Your task to perform on an android device: Clear the cart on amazon. Add lenovo thinkpad to the cart on amazon, then select checkout. Image 0: 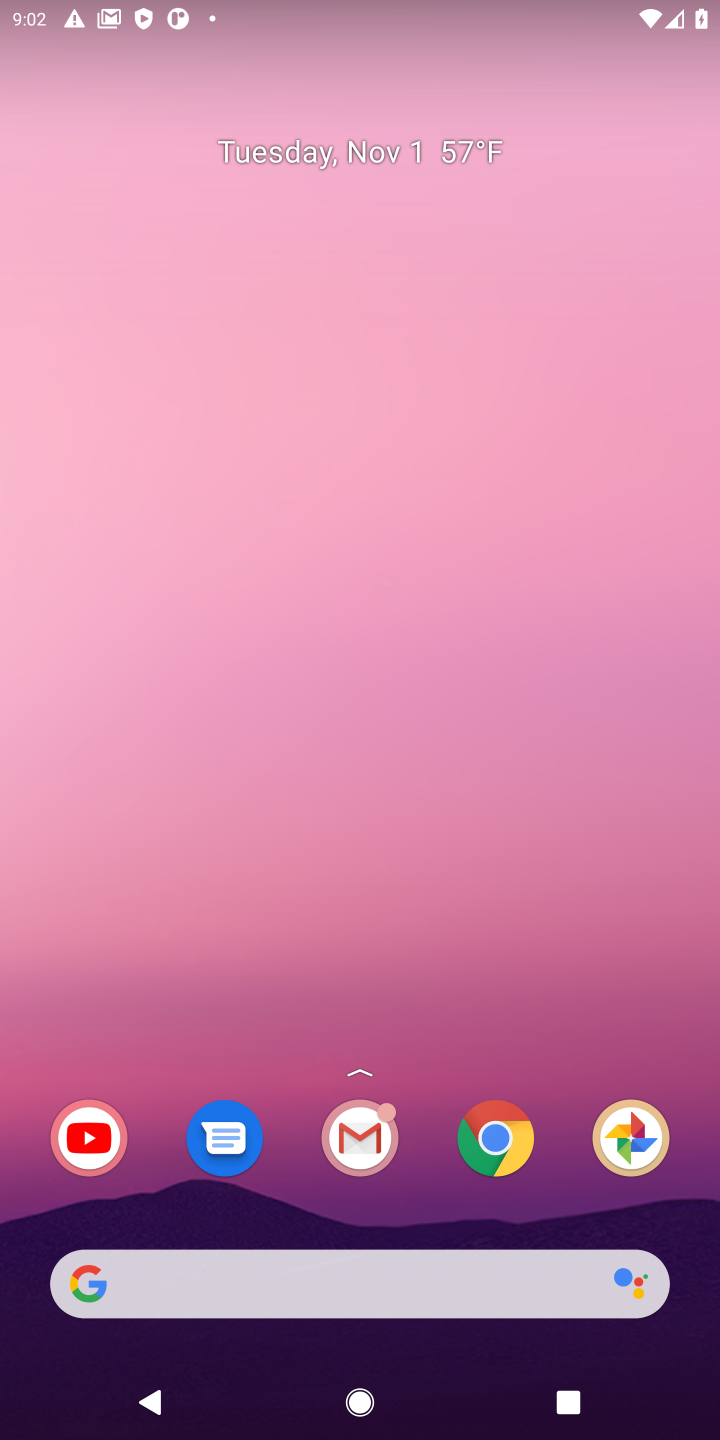
Step 0: click (493, 1149)
Your task to perform on an android device: Clear the cart on amazon. Add lenovo thinkpad to the cart on amazon, then select checkout. Image 1: 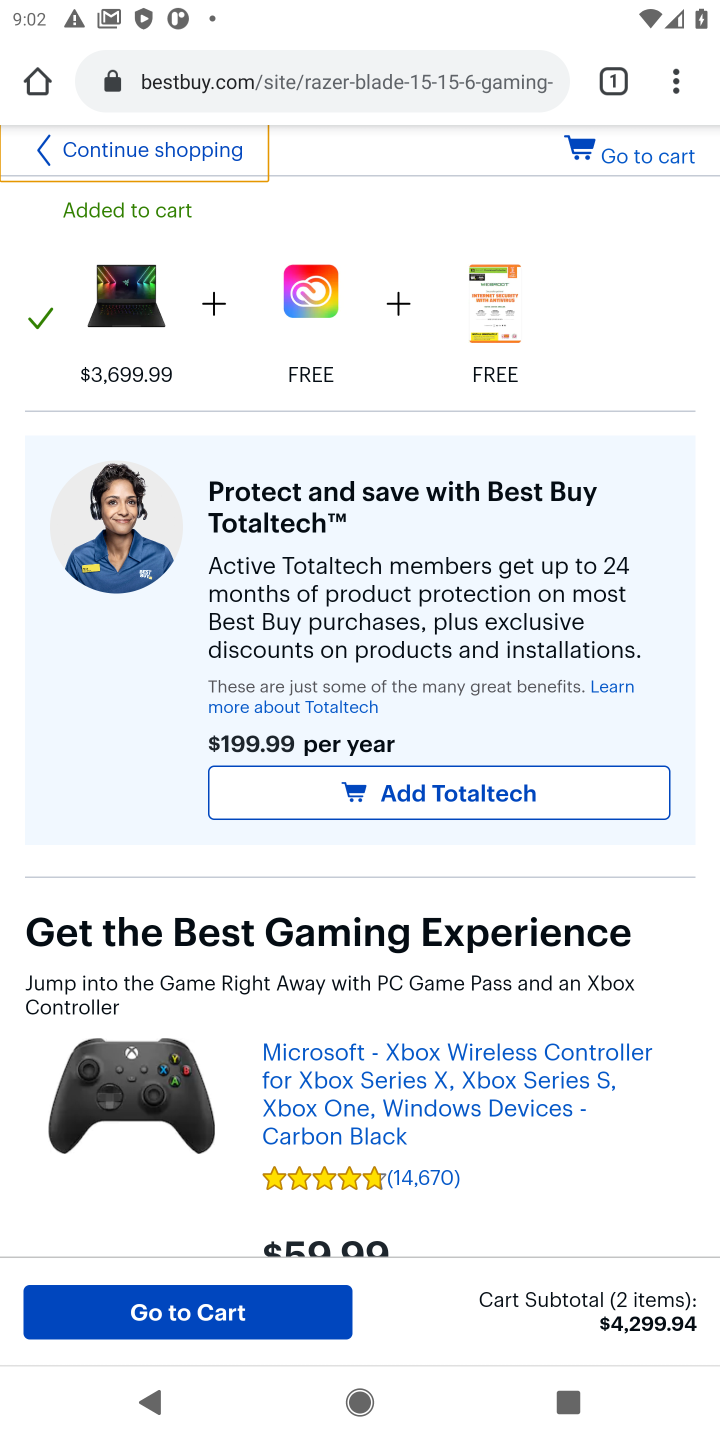
Step 1: click (252, 79)
Your task to perform on an android device: Clear the cart on amazon. Add lenovo thinkpad to the cart on amazon, then select checkout. Image 2: 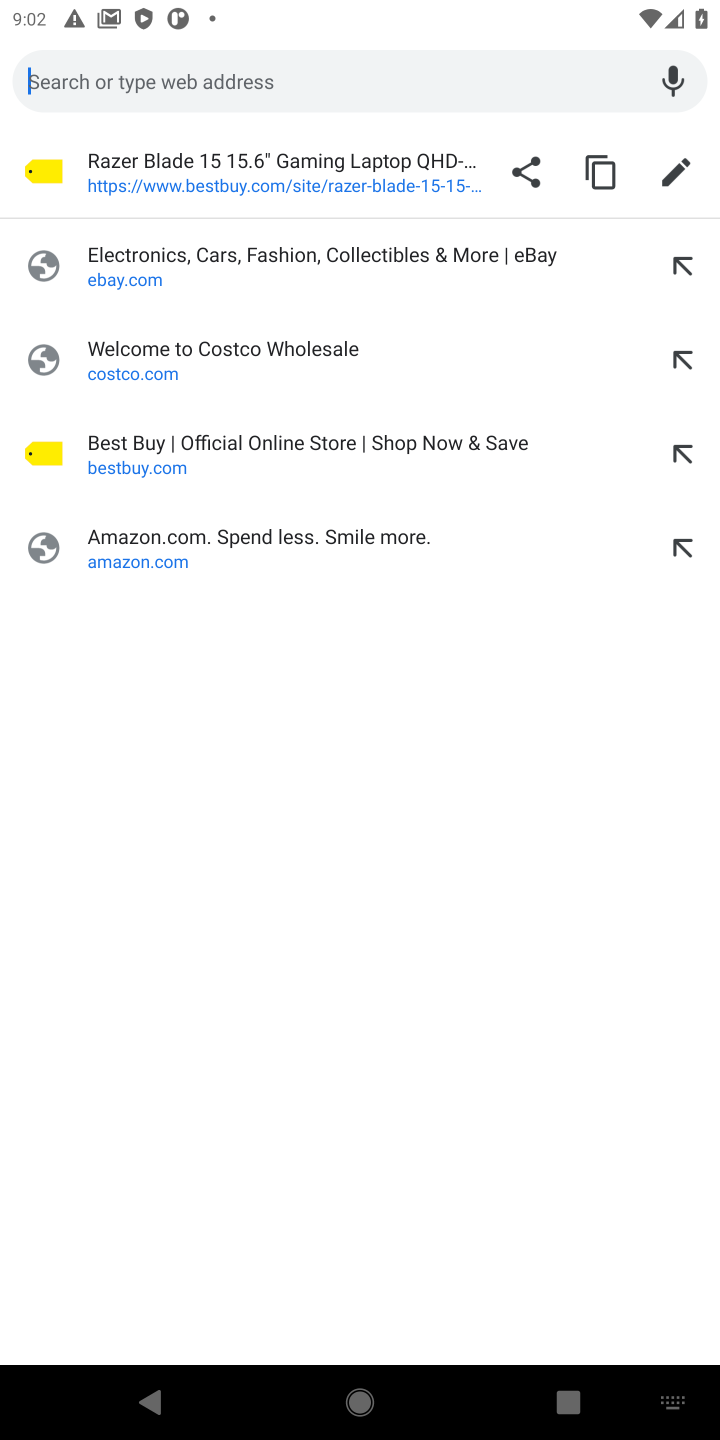
Step 2: click (135, 561)
Your task to perform on an android device: Clear the cart on amazon. Add lenovo thinkpad to the cart on amazon, then select checkout. Image 3: 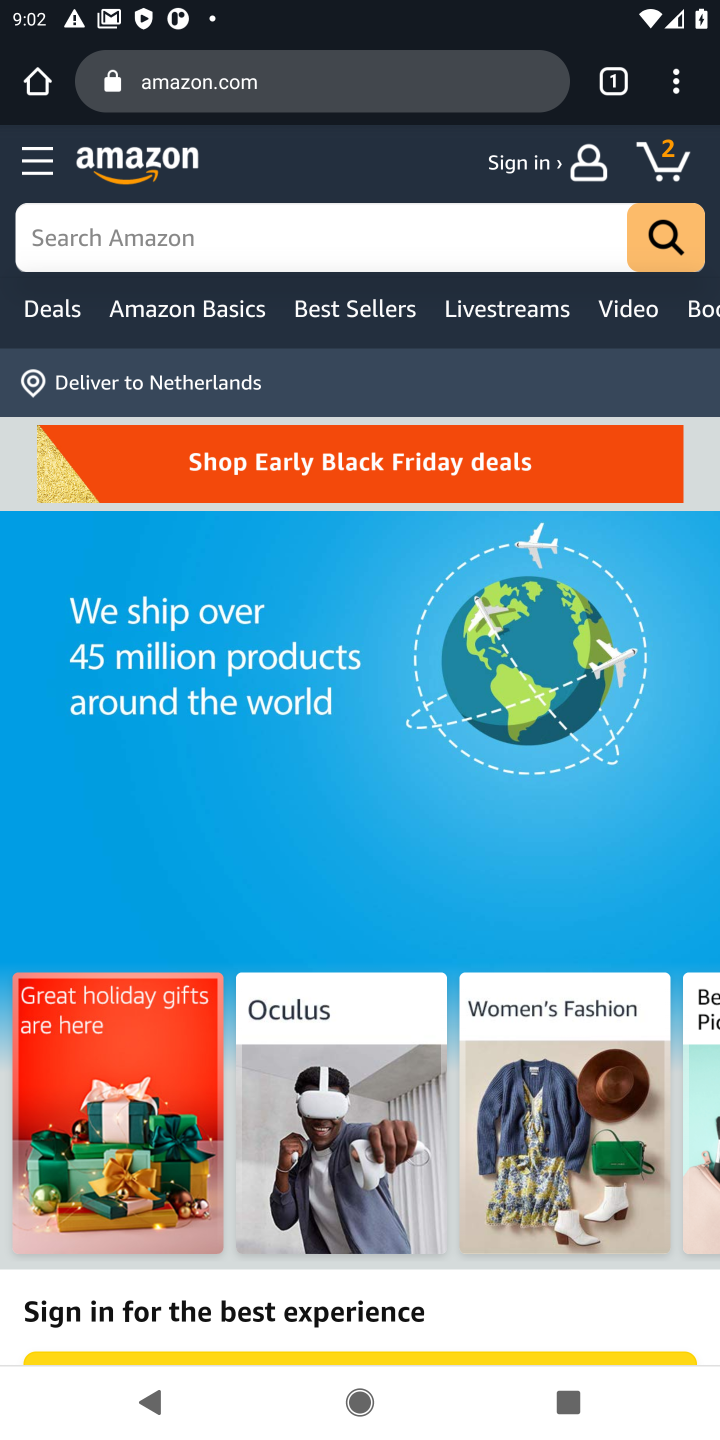
Step 3: click (670, 161)
Your task to perform on an android device: Clear the cart on amazon. Add lenovo thinkpad to the cart on amazon, then select checkout. Image 4: 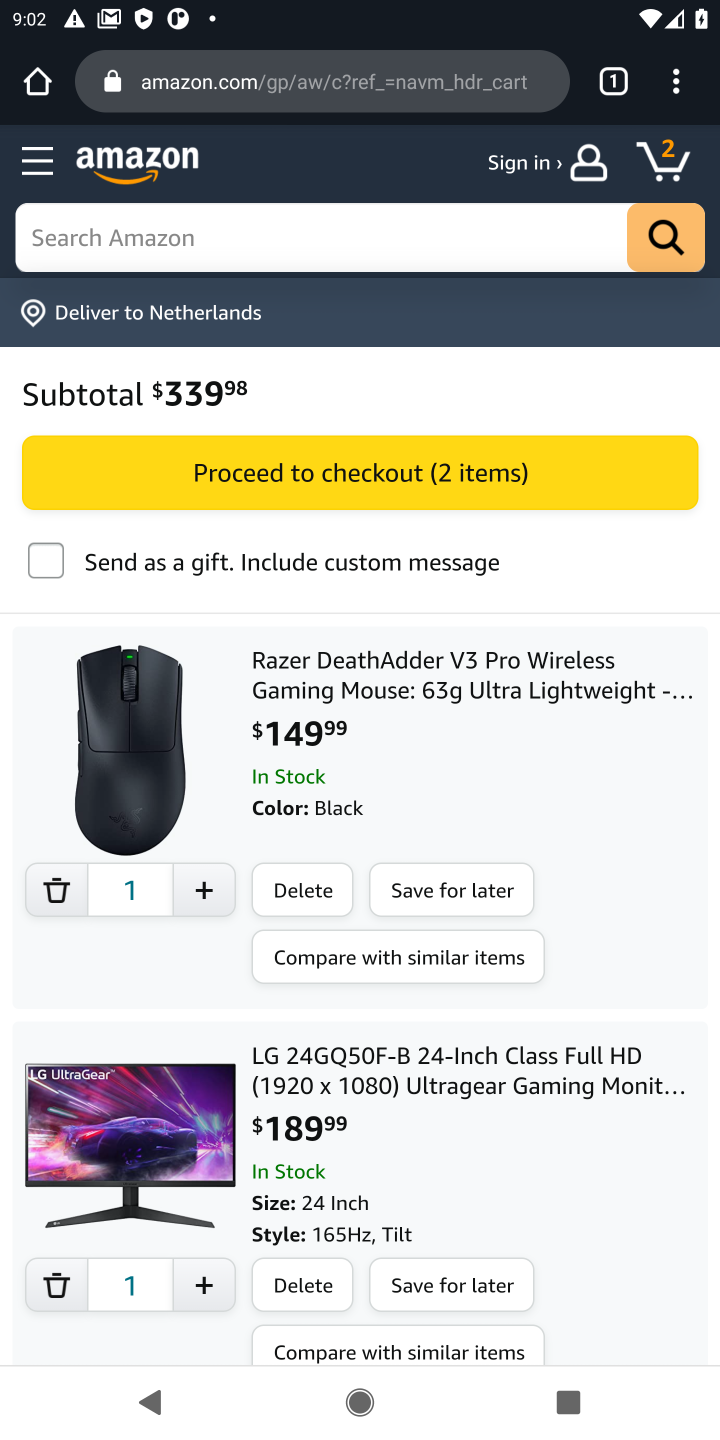
Step 4: click (312, 895)
Your task to perform on an android device: Clear the cart on amazon. Add lenovo thinkpad to the cart on amazon, then select checkout. Image 5: 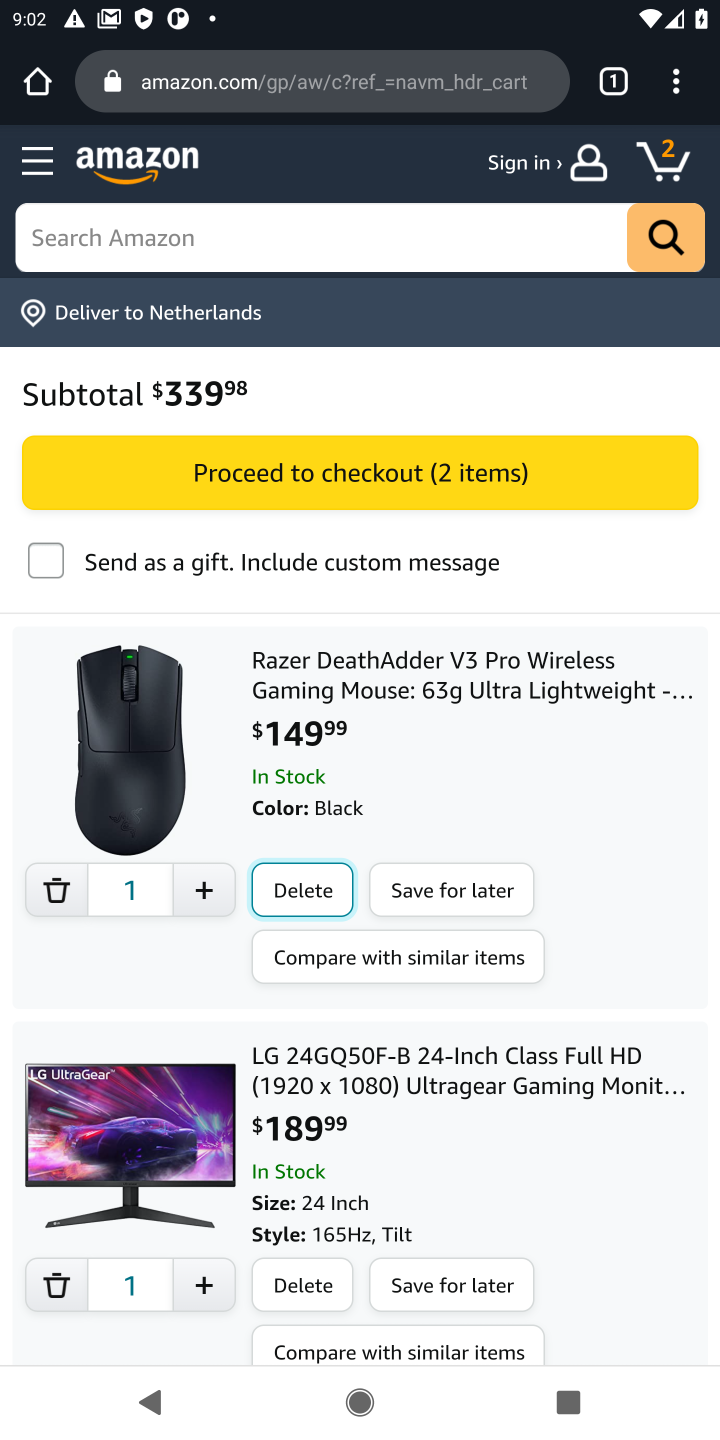
Step 5: click (312, 895)
Your task to perform on an android device: Clear the cart on amazon. Add lenovo thinkpad to the cart on amazon, then select checkout. Image 6: 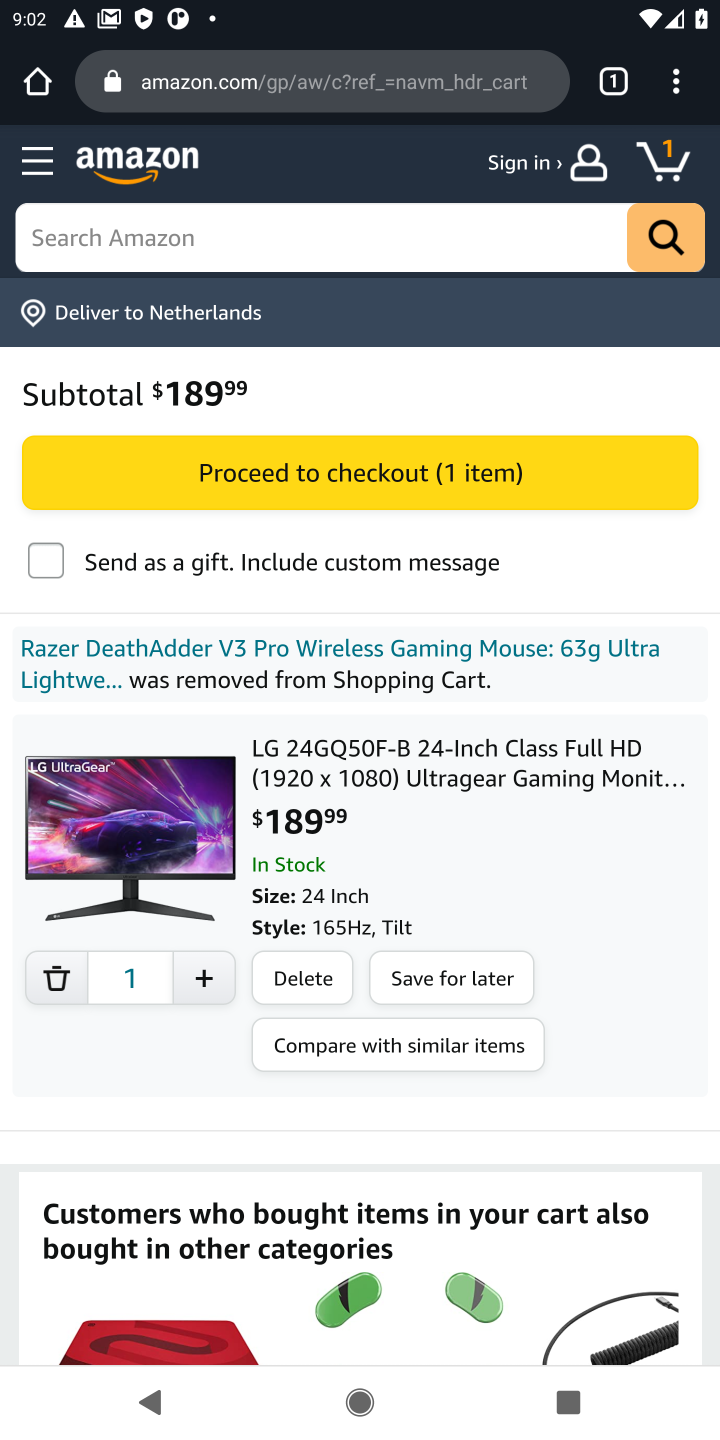
Step 6: click (291, 978)
Your task to perform on an android device: Clear the cart on amazon. Add lenovo thinkpad to the cart on amazon, then select checkout. Image 7: 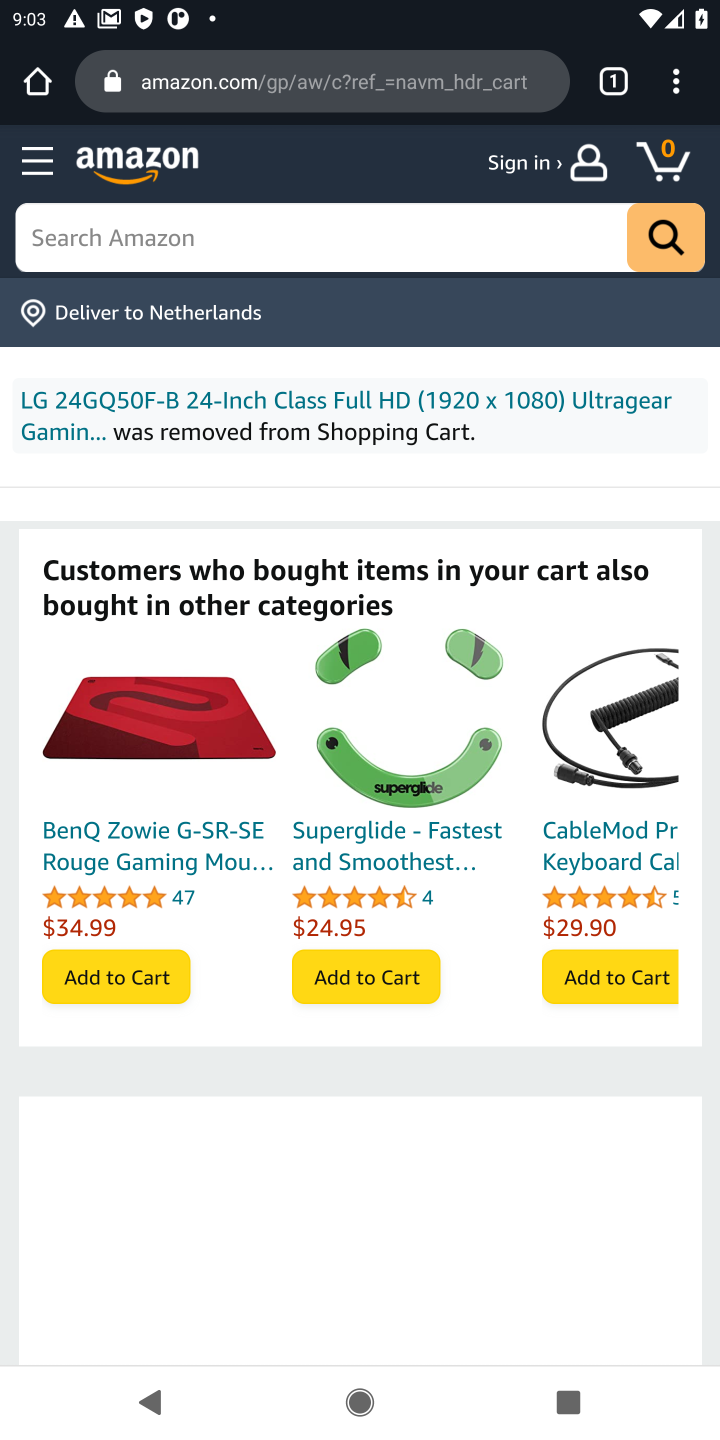
Step 7: click (173, 250)
Your task to perform on an android device: Clear the cart on amazon. Add lenovo thinkpad to the cart on amazon, then select checkout. Image 8: 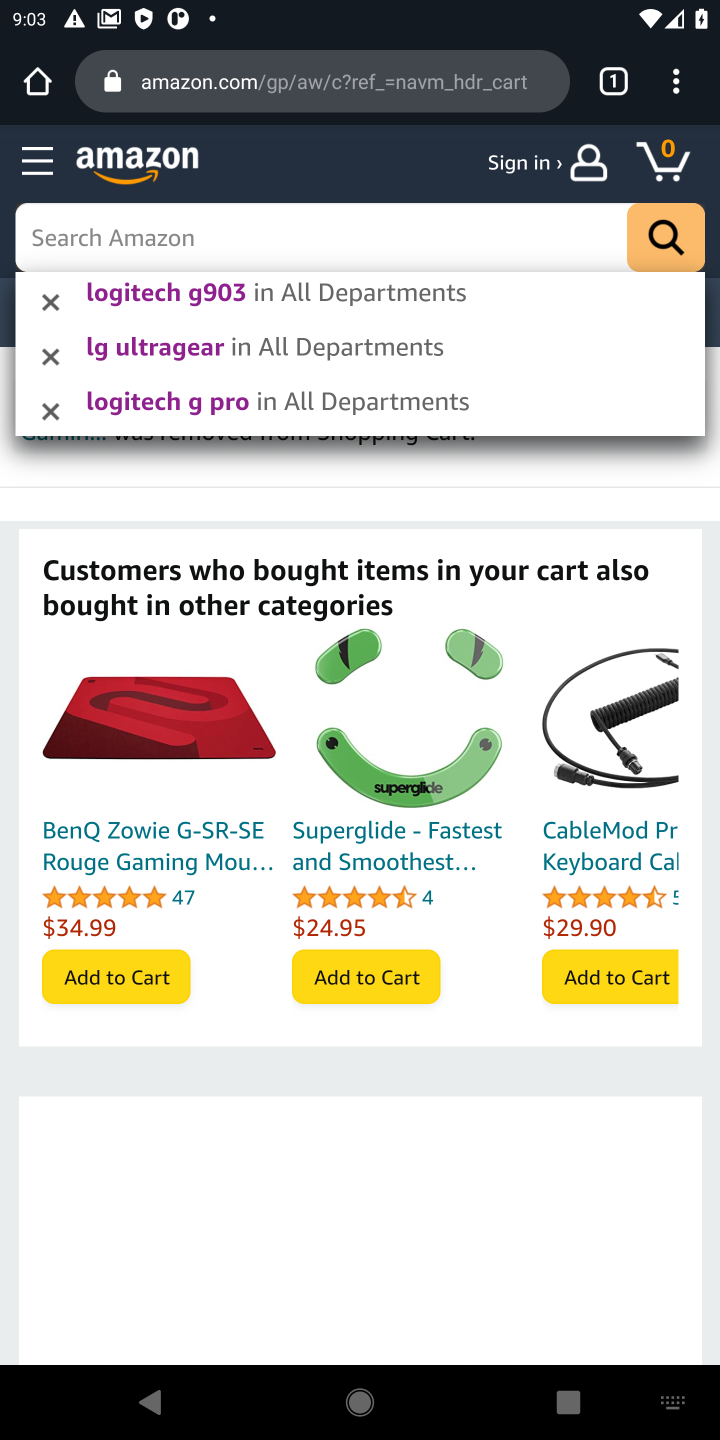
Step 8: type "lenovo thinkpad "
Your task to perform on an android device: Clear the cart on amazon. Add lenovo thinkpad to the cart on amazon, then select checkout. Image 9: 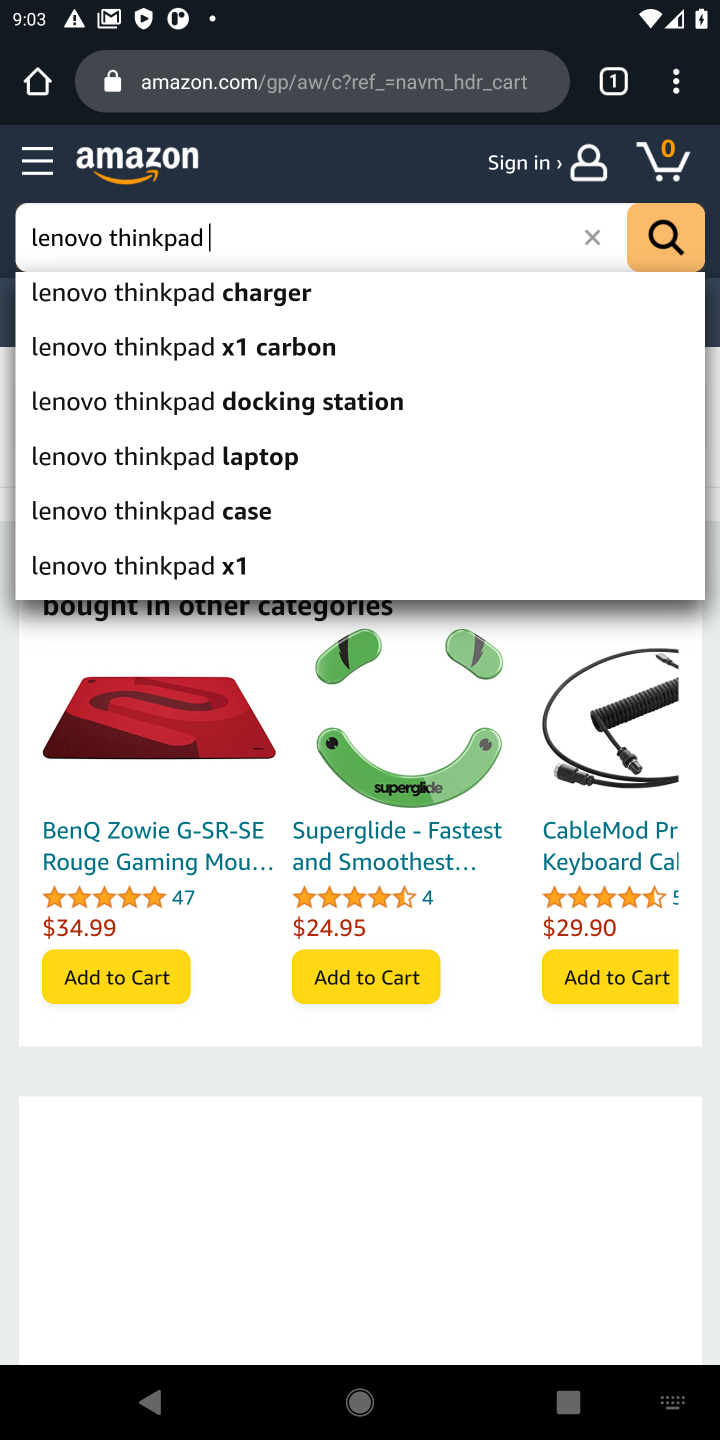
Step 9: click (665, 232)
Your task to perform on an android device: Clear the cart on amazon. Add lenovo thinkpad to the cart on amazon, then select checkout. Image 10: 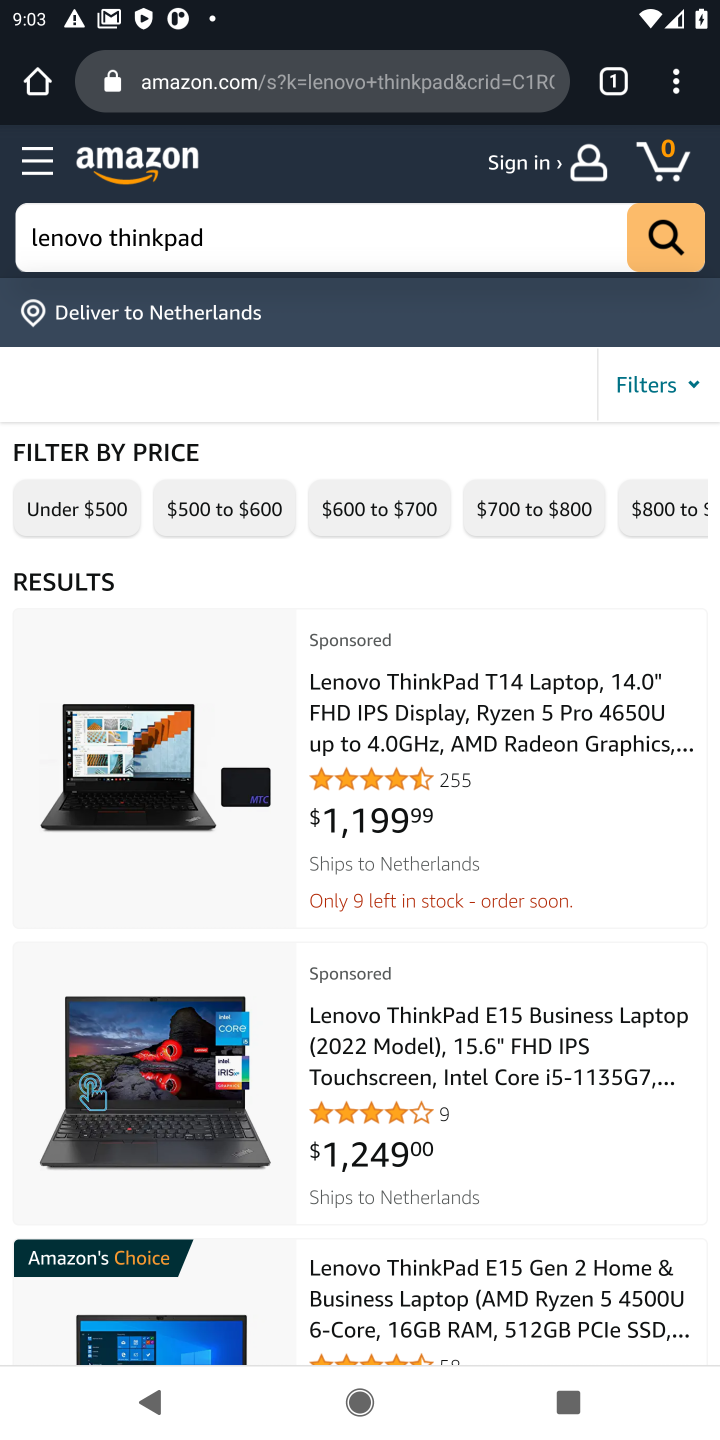
Step 10: click (313, 767)
Your task to perform on an android device: Clear the cart on amazon. Add lenovo thinkpad to the cart on amazon, then select checkout. Image 11: 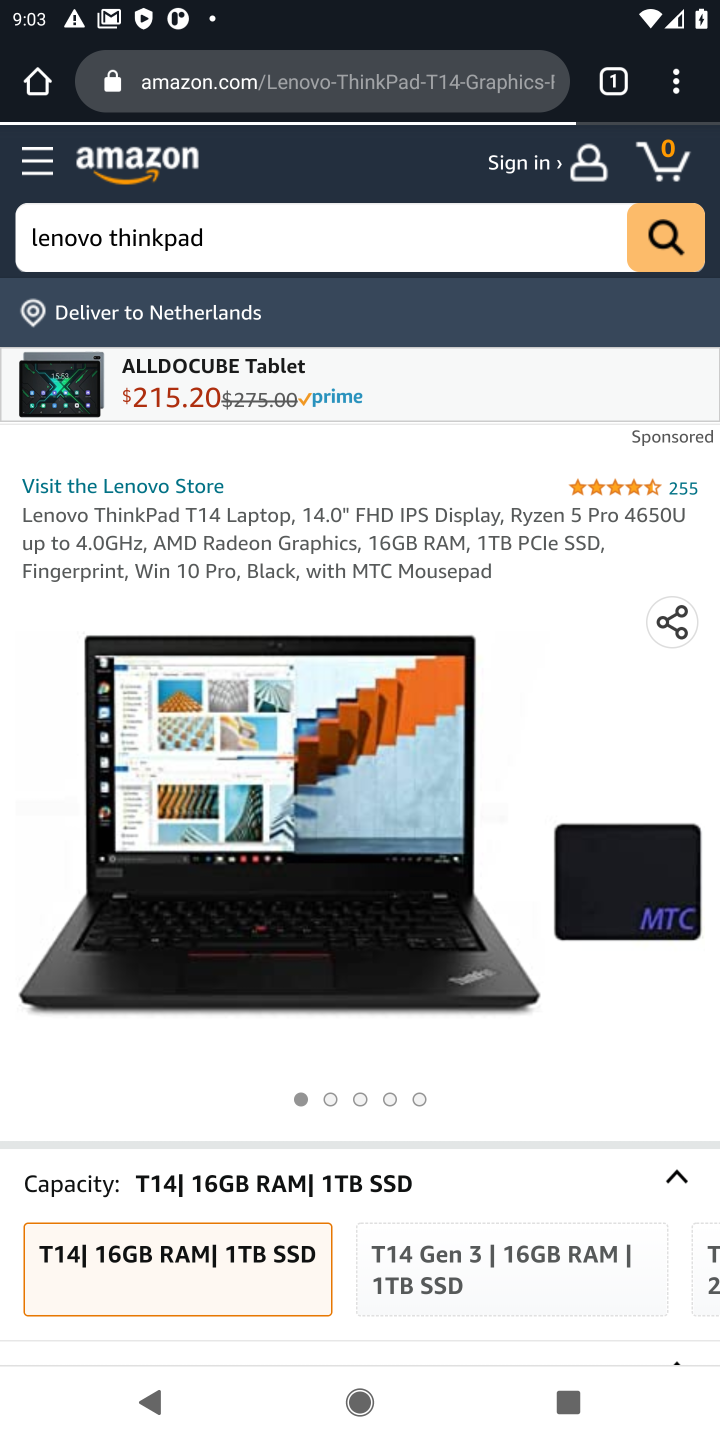
Step 11: drag from (310, 868) to (277, 361)
Your task to perform on an android device: Clear the cart on amazon. Add lenovo thinkpad to the cart on amazon, then select checkout. Image 12: 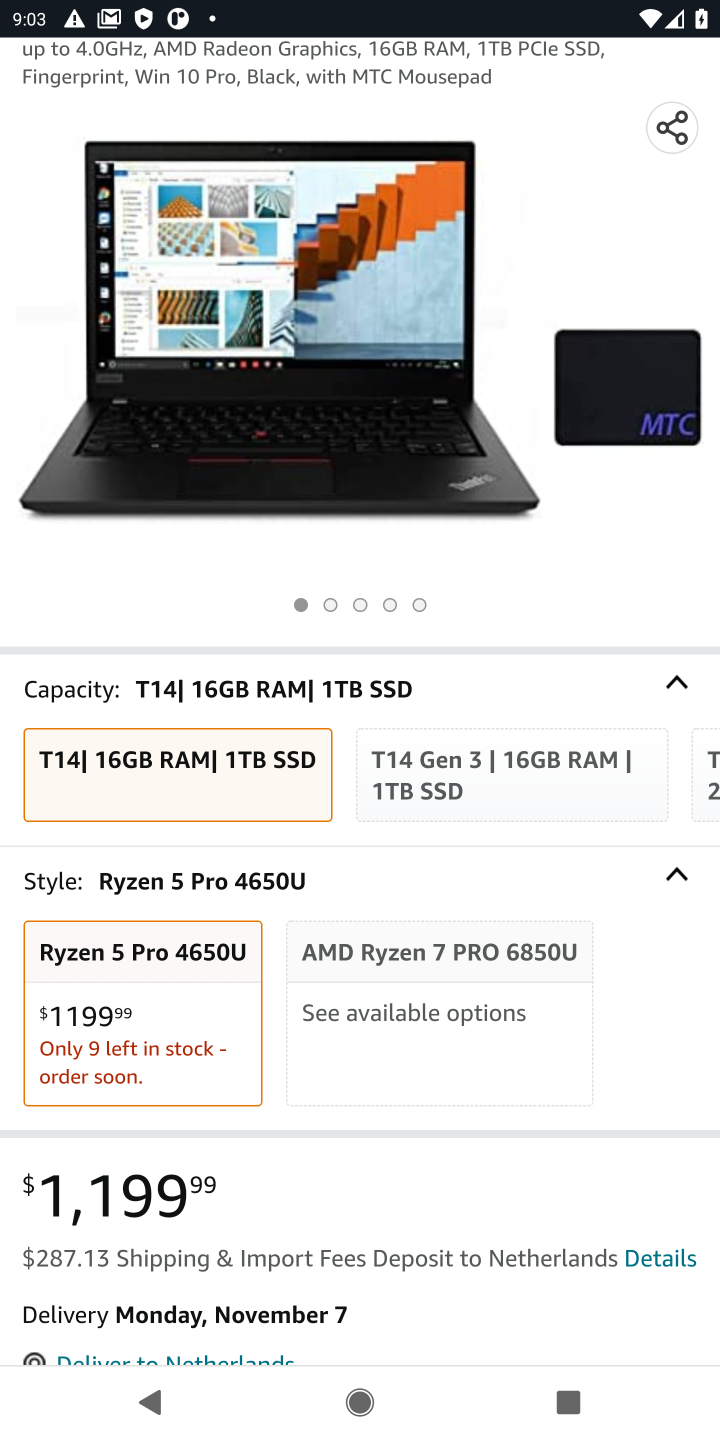
Step 12: drag from (374, 956) to (353, 395)
Your task to perform on an android device: Clear the cart on amazon. Add lenovo thinkpad to the cart on amazon, then select checkout. Image 13: 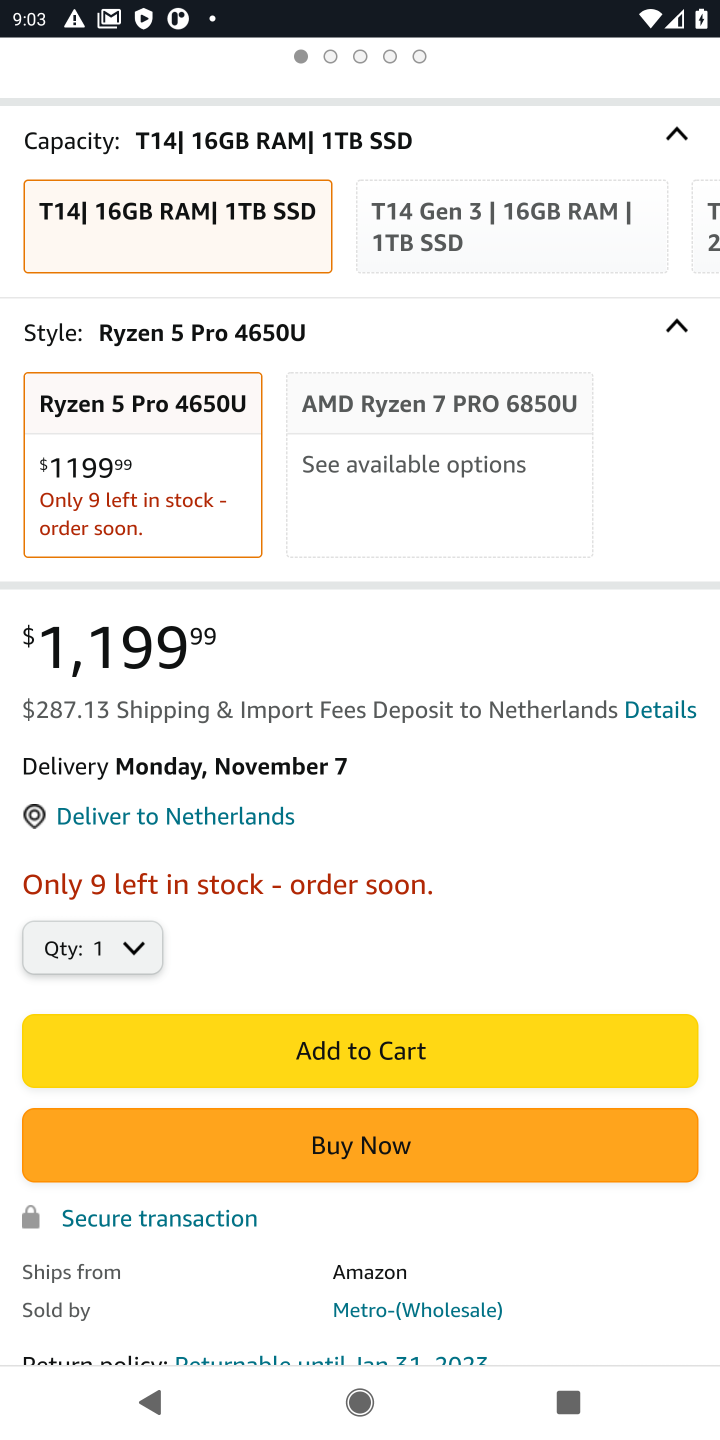
Step 13: click (312, 1051)
Your task to perform on an android device: Clear the cart on amazon. Add lenovo thinkpad to the cart on amazon, then select checkout. Image 14: 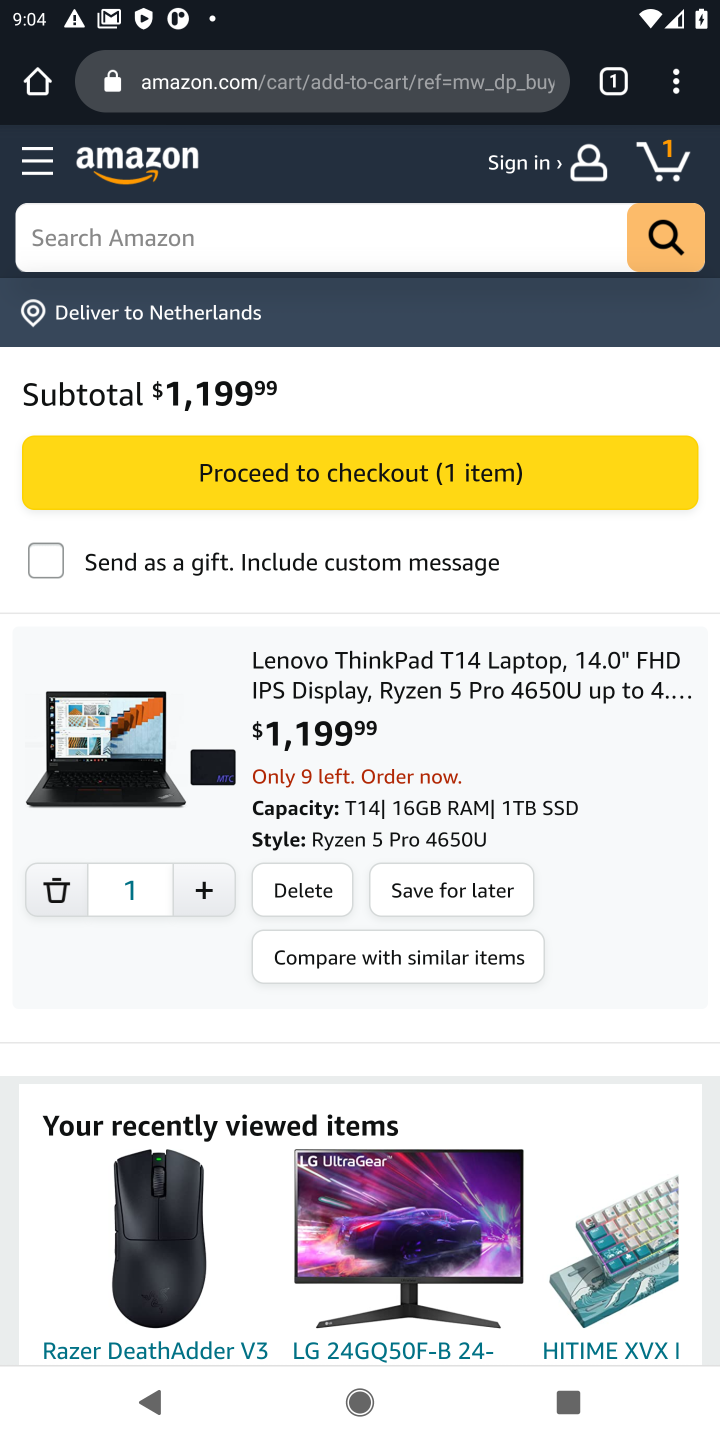
Step 14: click (279, 481)
Your task to perform on an android device: Clear the cart on amazon. Add lenovo thinkpad to the cart on amazon, then select checkout. Image 15: 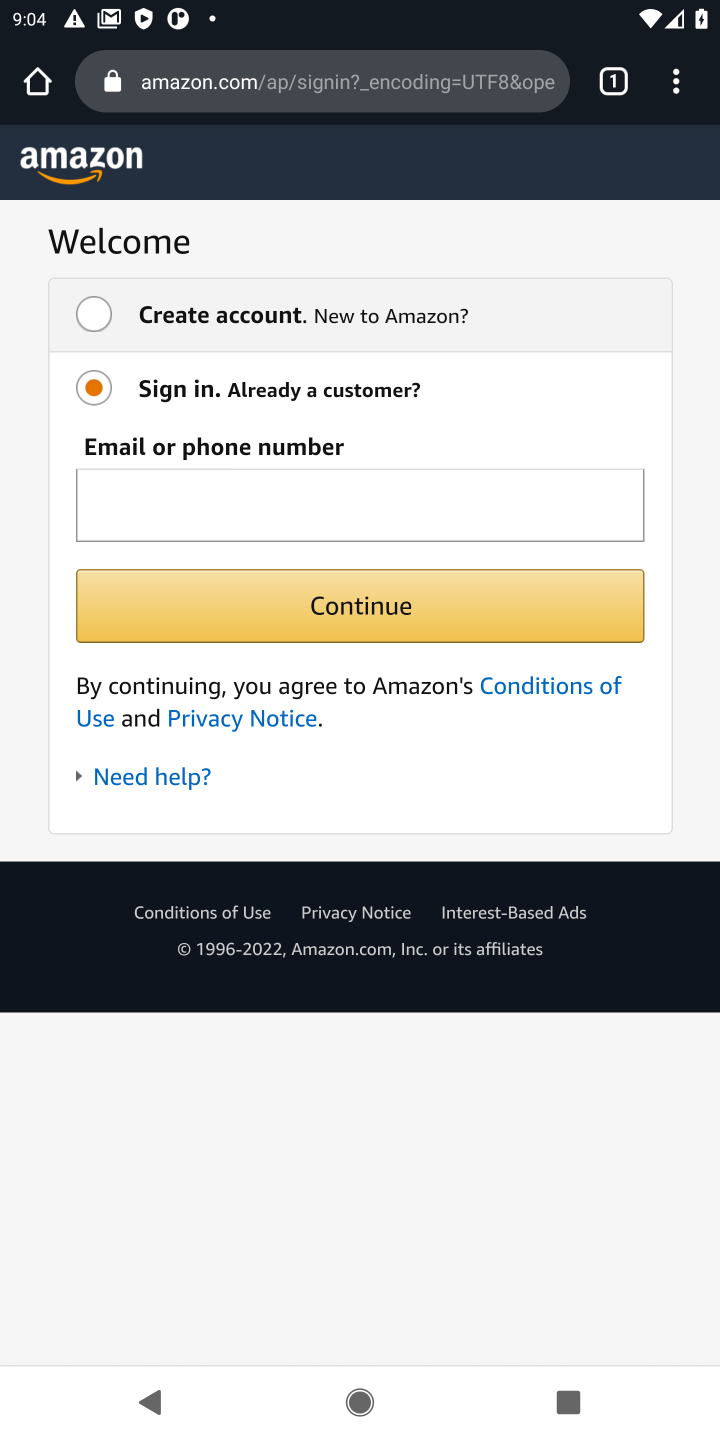
Step 15: task complete